Your task to perform on an android device: turn off translation in the chrome app Image 0: 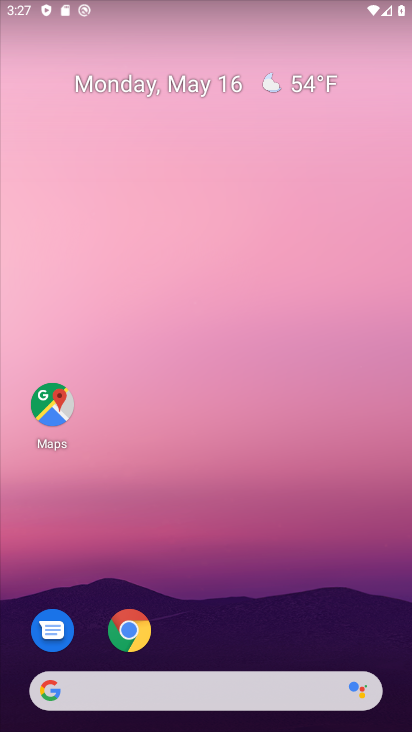
Step 0: click (140, 624)
Your task to perform on an android device: turn off translation in the chrome app Image 1: 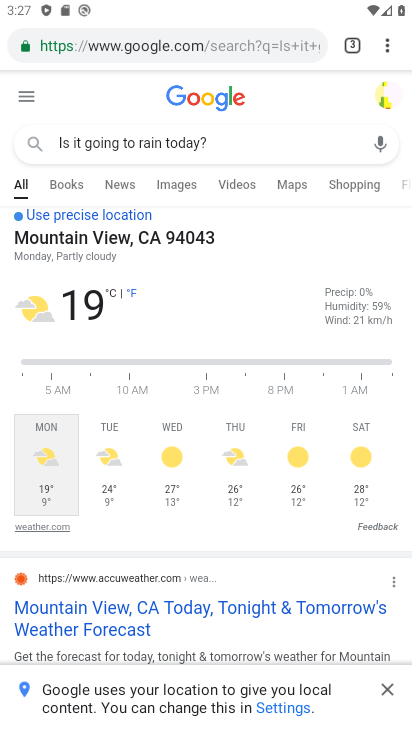
Step 1: click (385, 47)
Your task to perform on an android device: turn off translation in the chrome app Image 2: 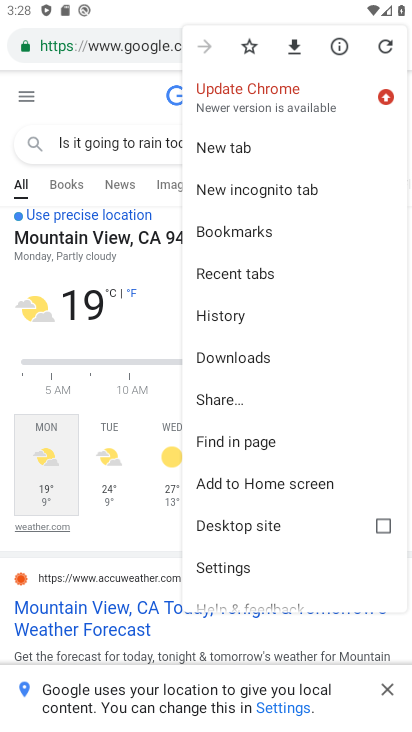
Step 2: click (306, 586)
Your task to perform on an android device: turn off translation in the chrome app Image 3: 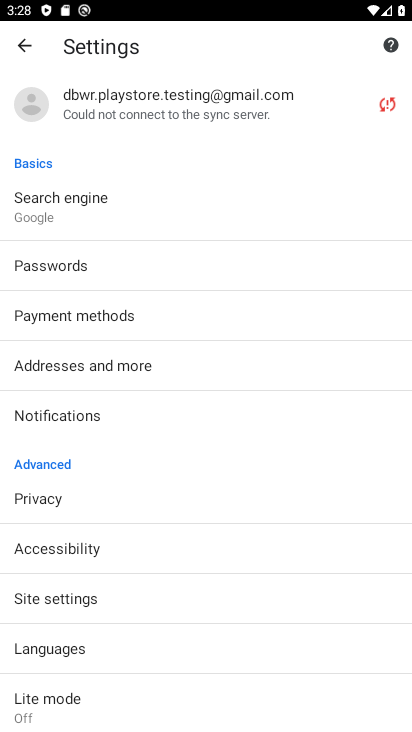
Step 3: click (307, 632)
Your task to perform on an android device: turn off translation in the chrome app Image 4: 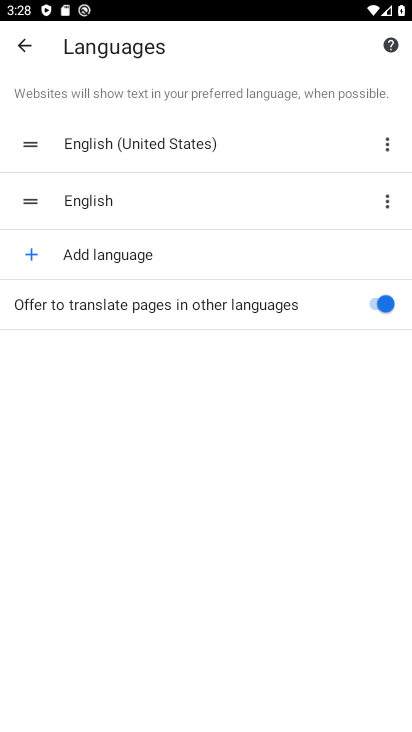
Step 4: click (380, 308)
Your task to perform on an android device: turn off translation in the chrome app Image 5: 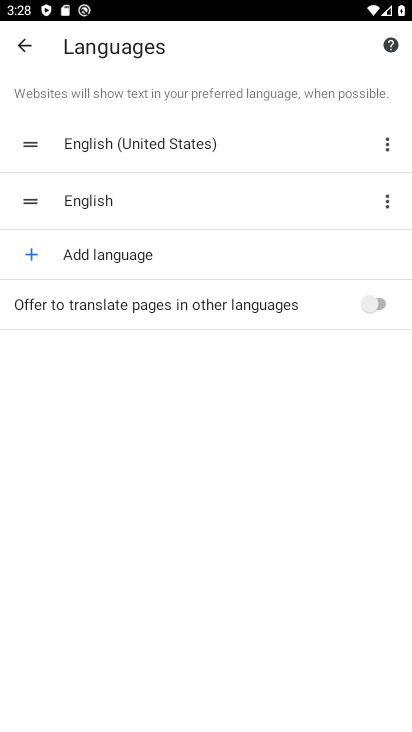
Step 5: task complete